Your task to perform on an android device: Open Chrome and go to settings Image 0: 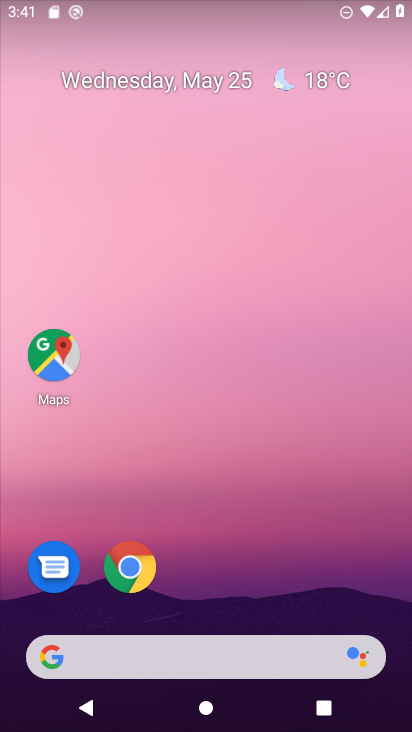
Step 0: drag from (390, 596) to (403, 267)
Your task to perform on an android device: Open Chrome and go to settings Image 1: 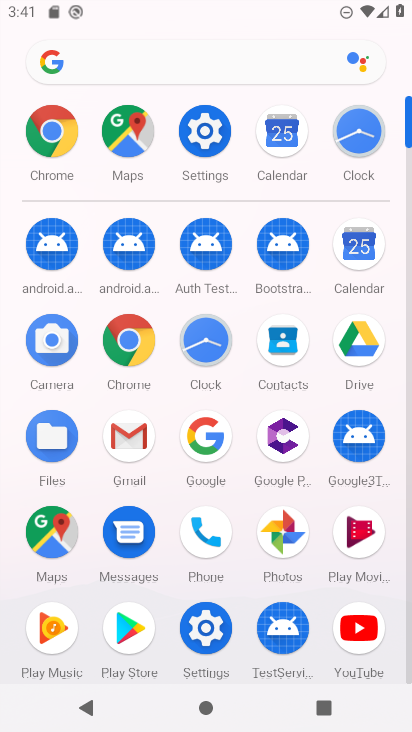
Step 1: click (142, 353)
Your task to perform on an android device: Open Chrome and go to settings Image 2: 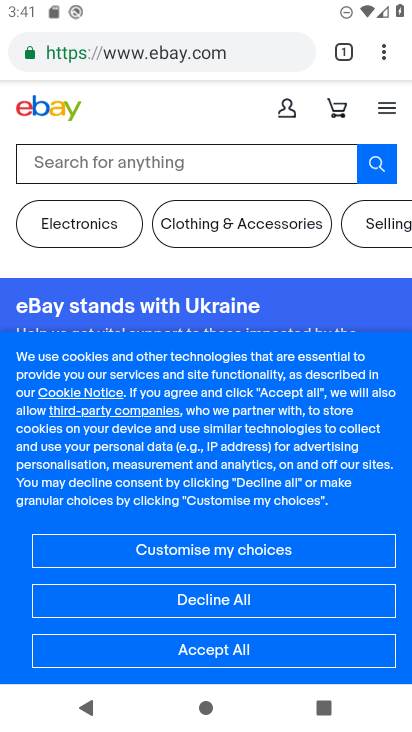
Step 2: click (382, 61)
Your task to perform on an android device: Open Chrome and go to settings Image 3: 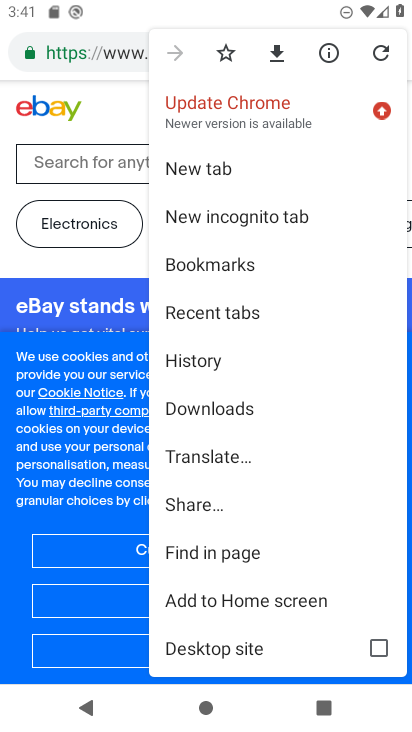
Step 3: drag from (312, 500) to (325, 427)
Your task to perform on an android device: Open Chrome and go to settings Image 4: 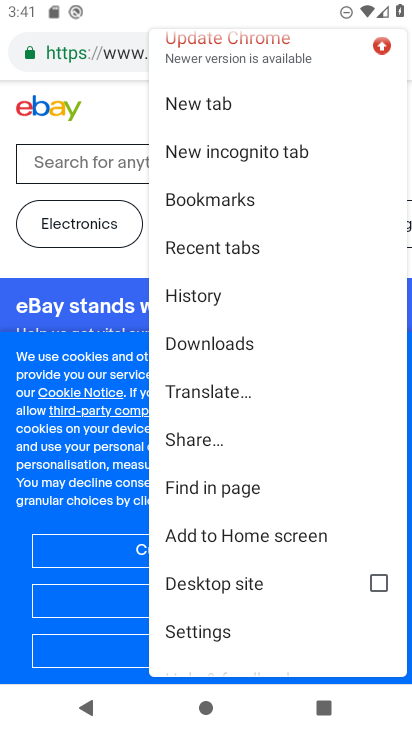
Step 4: drag from (339, 525) to (354, 404)
Your task to perform on an android device: Open Chrome and go to settings Image 5: 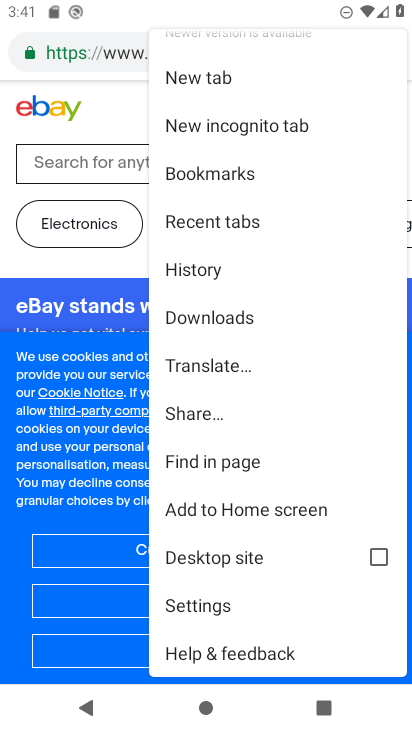
Step 5: click (280, 600)
Your task to perform on an android device: Open Chrome and go to settings Image 6: 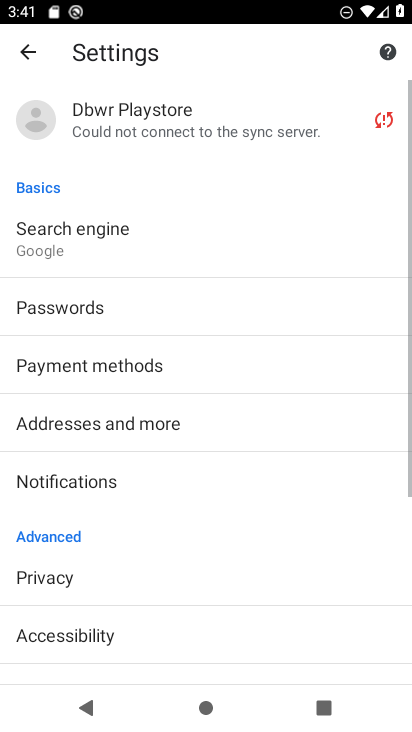
Step 6: task complete